Your task to perform on an android device: Open Amazon Image 0: 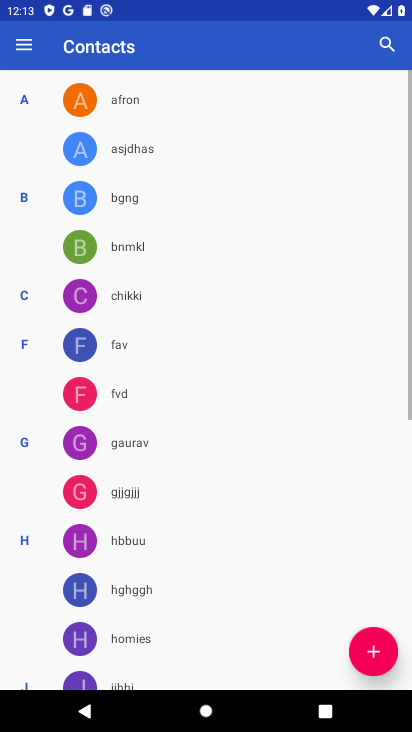
Step 0: press home button
Your task to perform on an android device: Open Amazon Image 1: 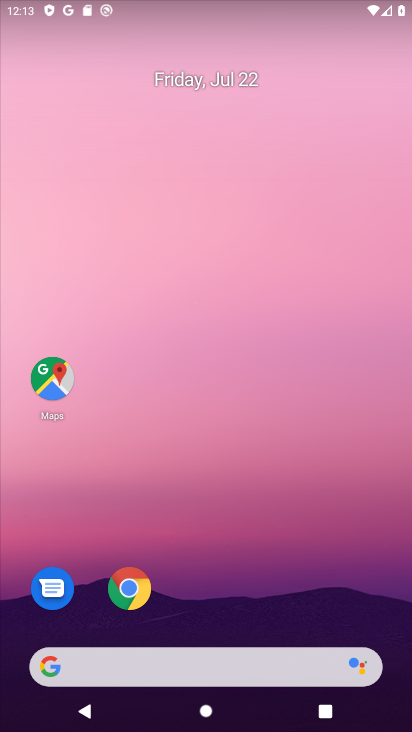
Step 1: click (137, 601)
Your task to perform on an android device: Open Amazon Image 2: 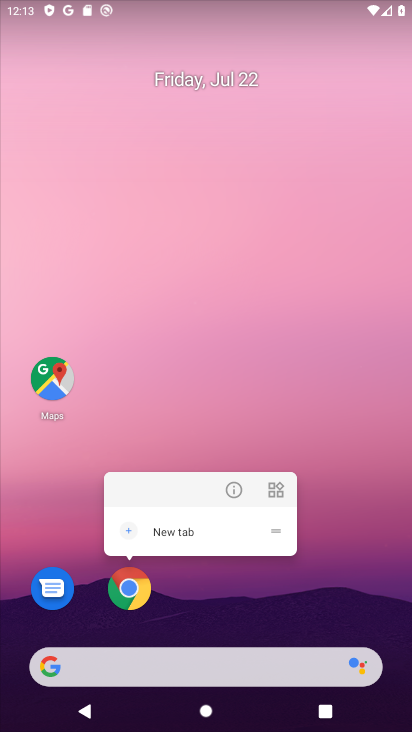
Step 2: click (137, 601)
Your task to perform on an android device: Open Amazon Image 3: 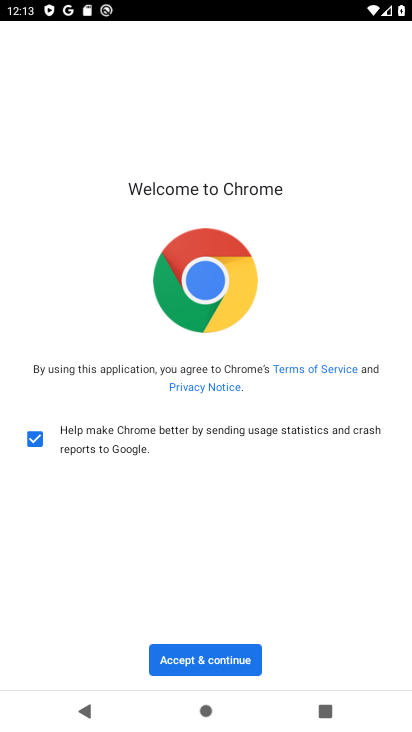
Step 3: click (189, 658)
Your task to perform on an android device: Open Amazon Image 4: 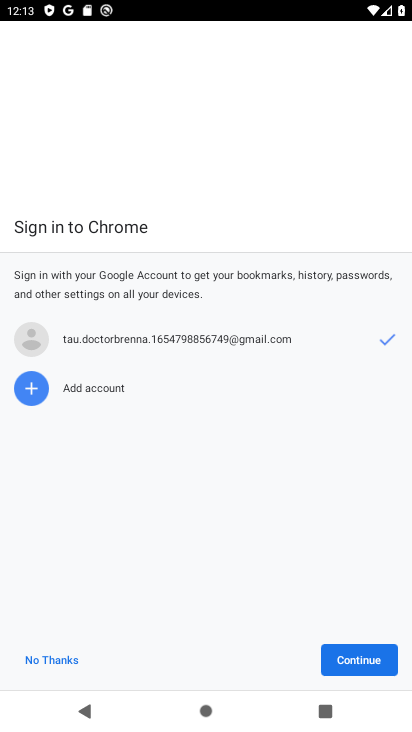
Step 4: click (332, 653)
Your task to perform on an android device: Open Amazon Image 5: 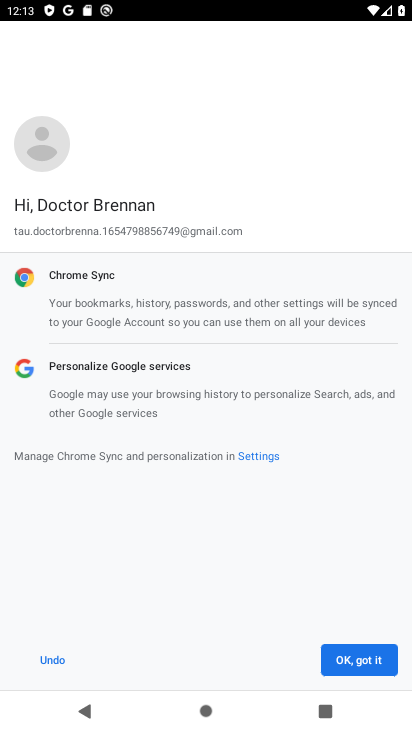
Step 5: click (346, 661)
Your task to perform on an android device: Open Amazon Image 6: 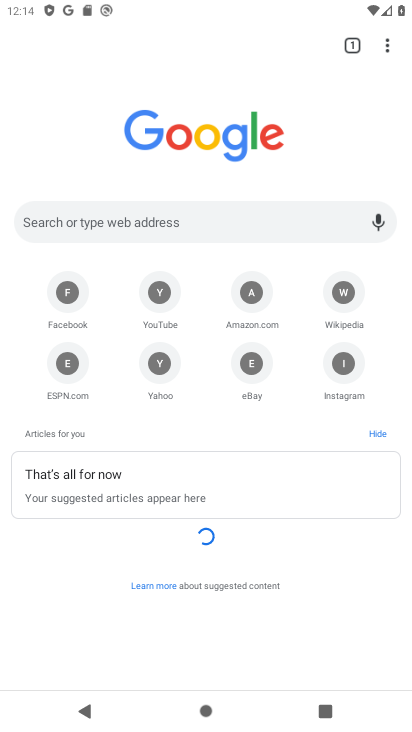
Step 6: click (249, 306)
Your task to perform on an android device: Open Amazon Image 7: 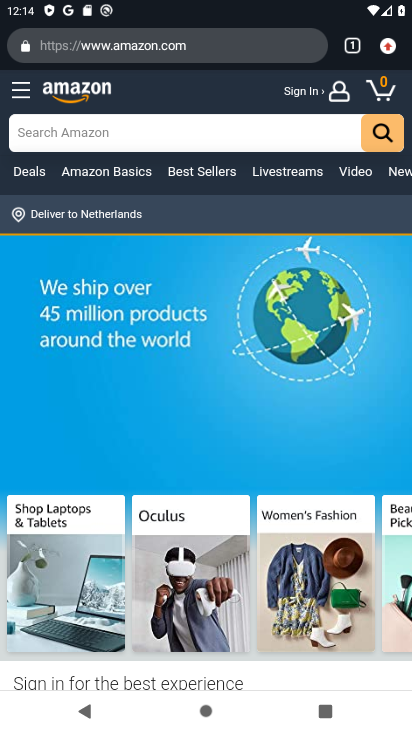
Step 7: task complete